Your task to perform on an android device: set an alarm Image 0: 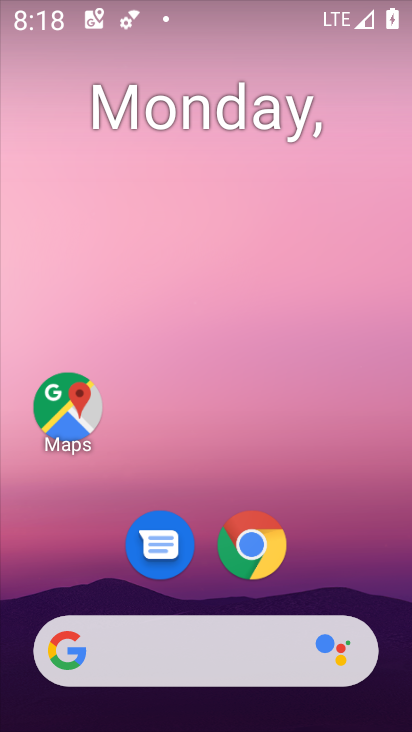
Step 0: drag from (230, 597) to (393, 15)
Your task to perform on an android device: set an alarm Image 1: 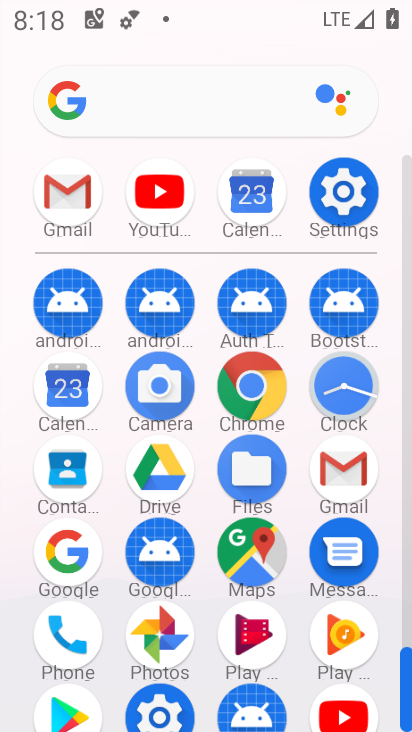
Step 1: click (349, 386)
Your task to perform on an android device: set an alarm Image 2: 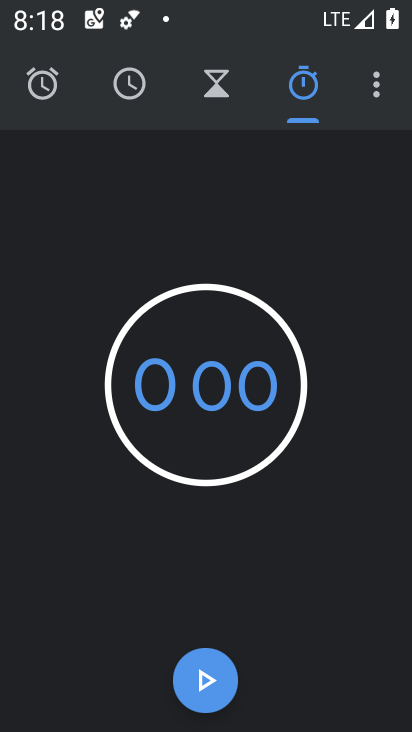
Step 2: click (43, 82)
Your task to perform on an android device: set an alarm Image 3: 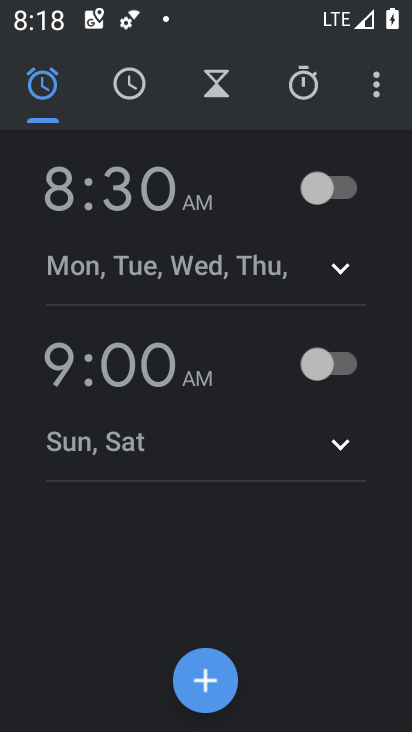
Step 3: click (338, 191)
Your task to perform on an android device: set an alarm Image 4: 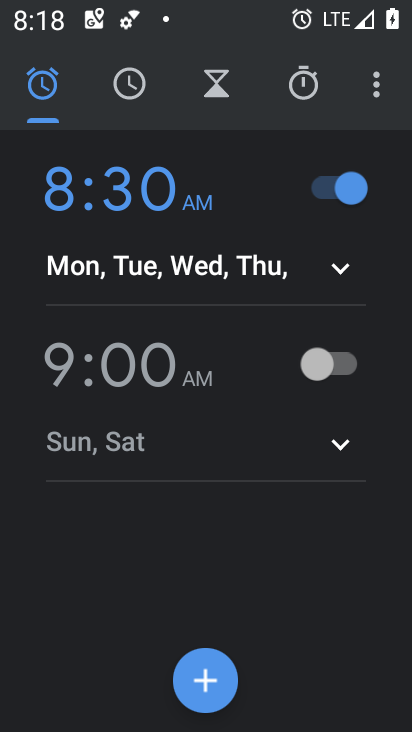
Step 4: task complete